Your task to perform on an android device: Go to calendar. Show me events next week Image 0: 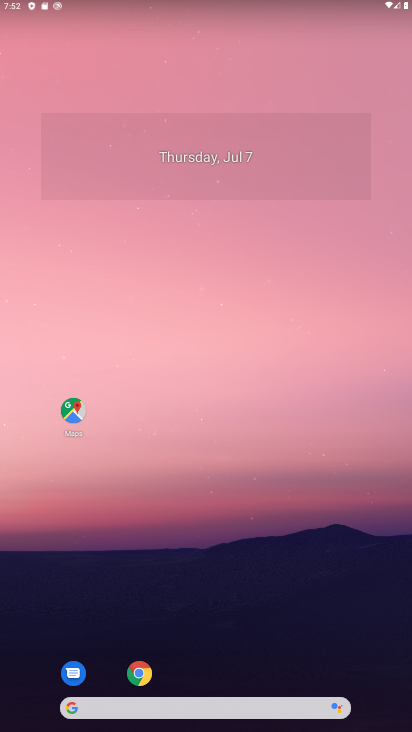
Step 0: press home button
Your task to perform on an android device: Go to calendar. Show me events next week Image 1: 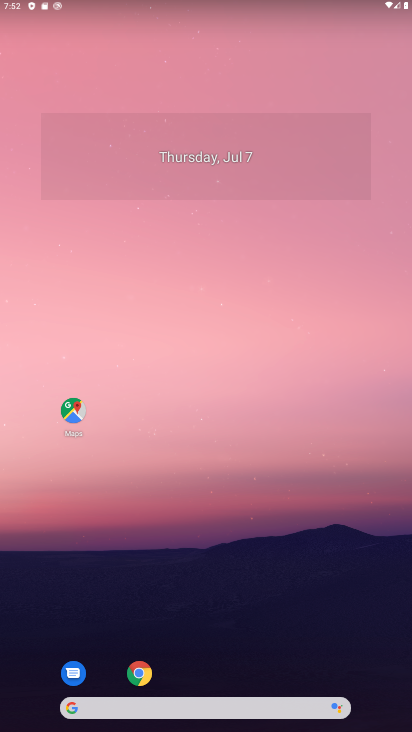
Step 1: drag from (274, 639) to (233, 34)
Your task to perform on an android device: Go to calendar. Show me events next week Image 2: 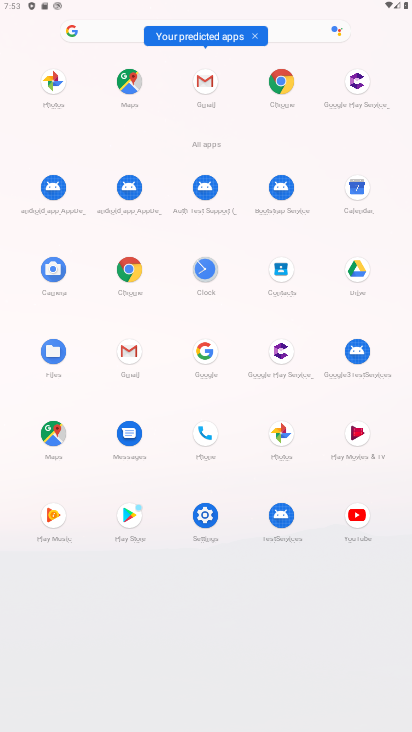
Step 2: click (356, 189)
Your task to perform on an android device: Go to calendar. Show me events next week Image 3: 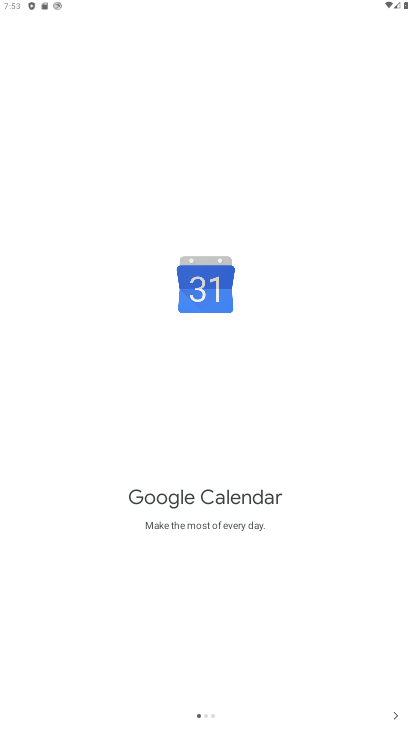
Step 3: click (399, 711)
Your task to perform on an android device: Go to calendar. Show me events next week Image 4: 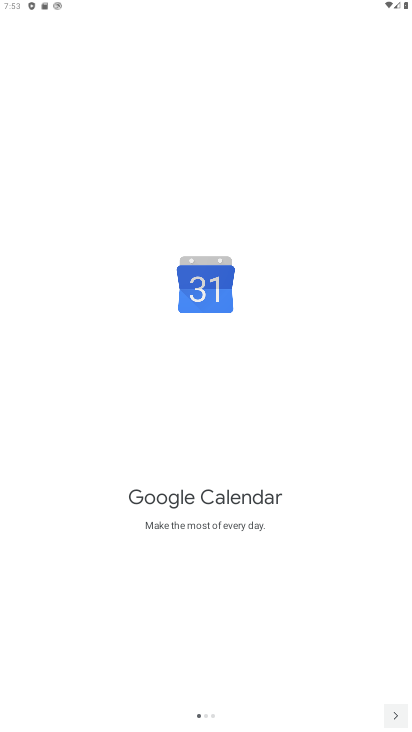
Step 4: click (399, 711)
Your task to perform on an android device: Go to calendar. Show me events next week Image 5: 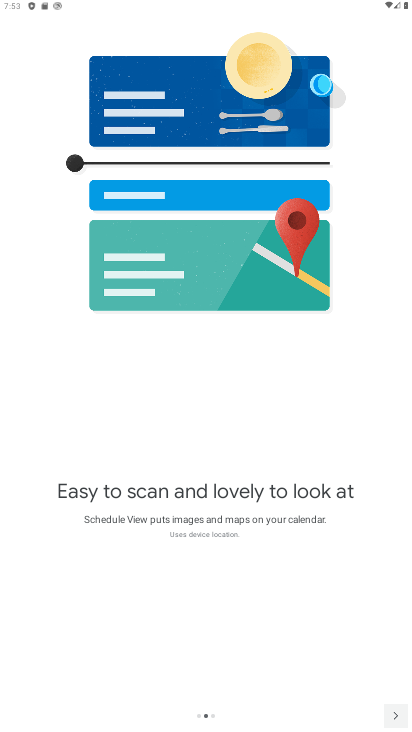
Step 5: click (399, 711)
Your task to perform on an android device: Go to calendar. Show me events next week Image 6: 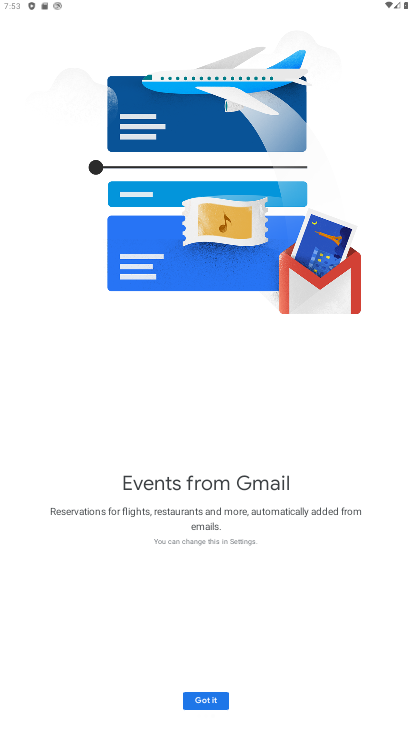
Step 6: click (399, 711)
Your task to perform on an android device: Go to calendar. Show me events next week Image 7: 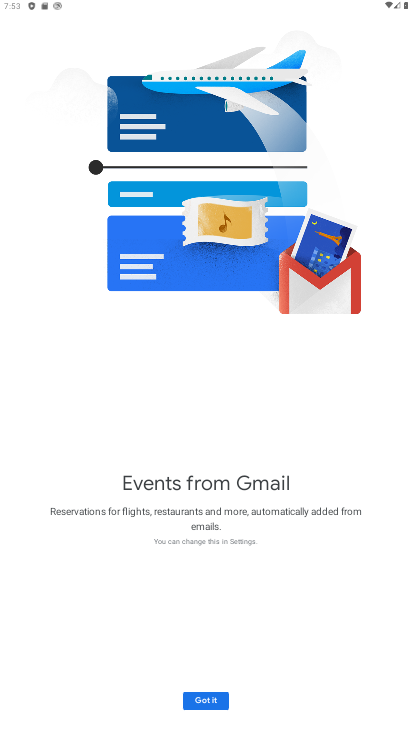
Step 7: click (399, 711)
Your task to perform on an android device: Go to calendar. Show me events next week Image 8: 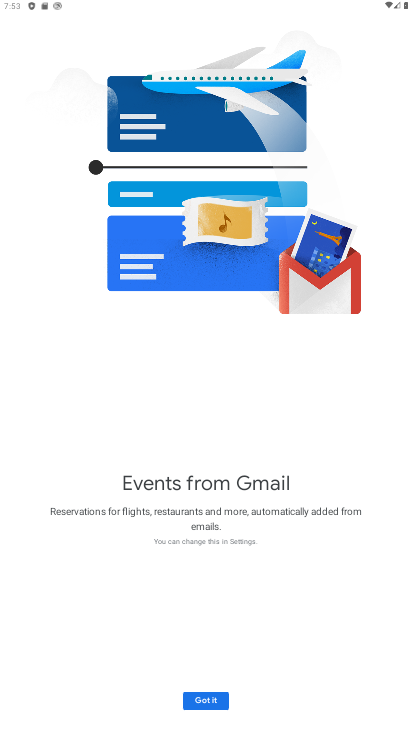
Step 8: click (216, 707)
Your task to perform on an android device: Go to calendar. Show me events next week Image 9: 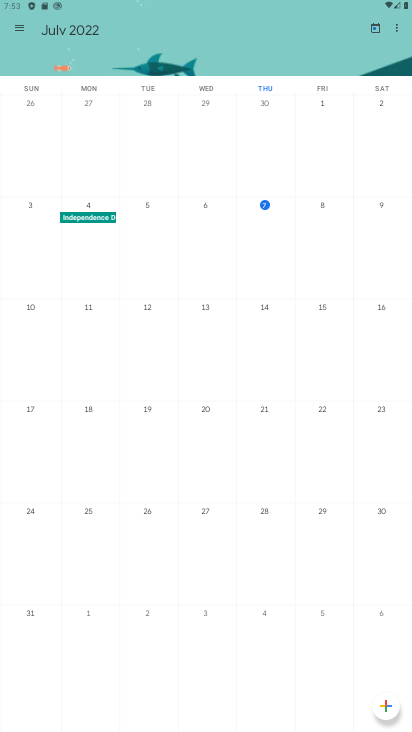
Step 9: click (35, 318)
Your task to perform on an android device: Go to calendar. Show me events next week Image 10: 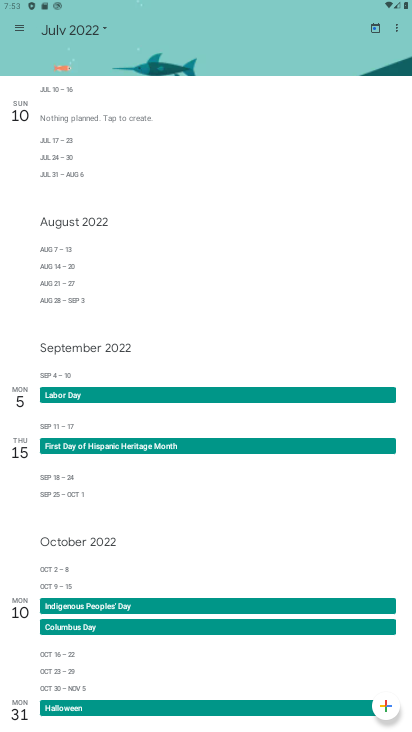
Step 10: task complete